Your task to perform on an android device: search for starred emails in the gmail app Image 0: 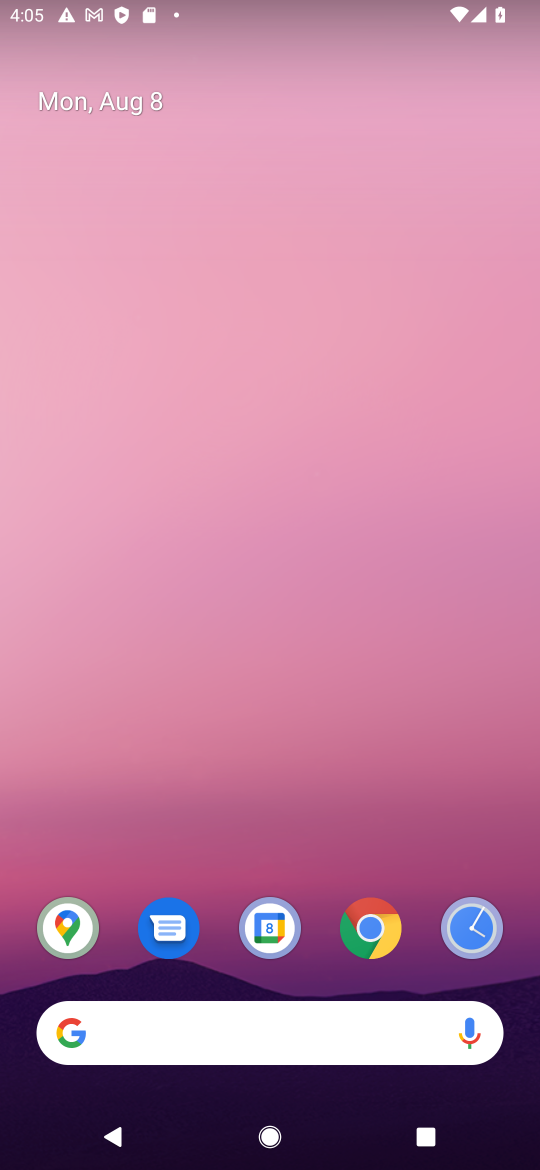
Step 0: drag from (382, 855) to (297, 31)
Your task to perform on an android device: search for starred emails in the gmail app Image 1: 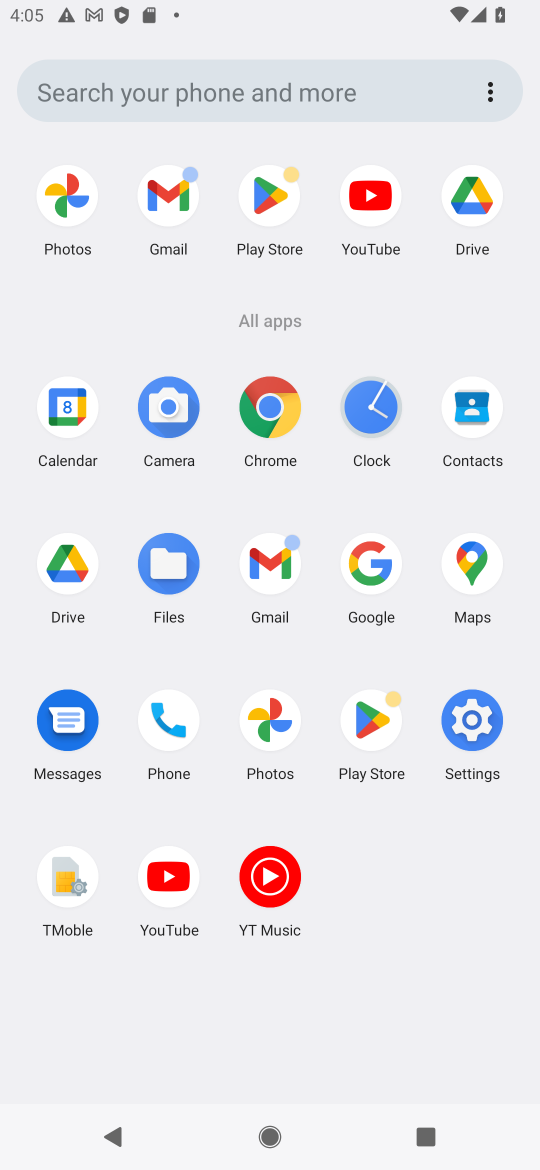
Step 1: click (165, 201)
Your task to perform on an android device: search for starred emails in the gmail app Image 2: 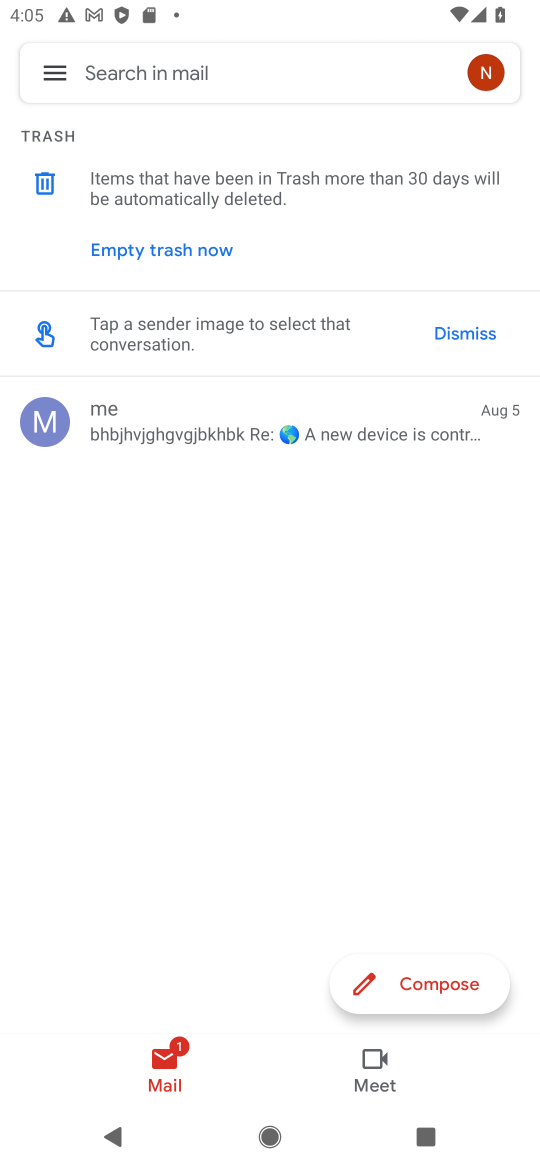
Step 2: click (66, 71)
Your task to perform on an android device: search for starred emails in the gmail app Image 3: 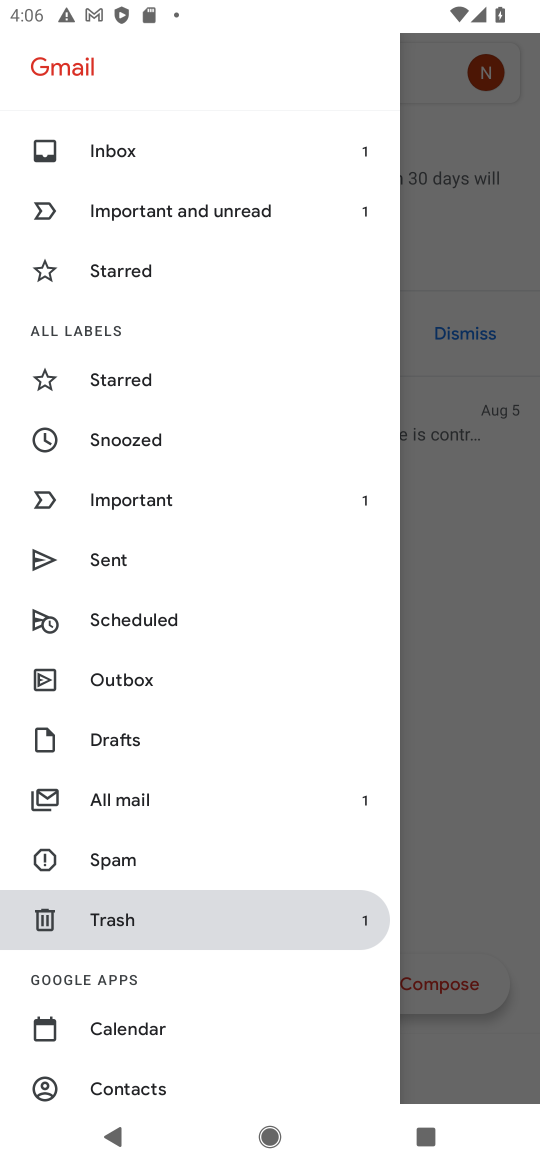
Step 3: click (189, 387)
Your task to perform on an android device: search for starred emails in the gmail app Image 4: 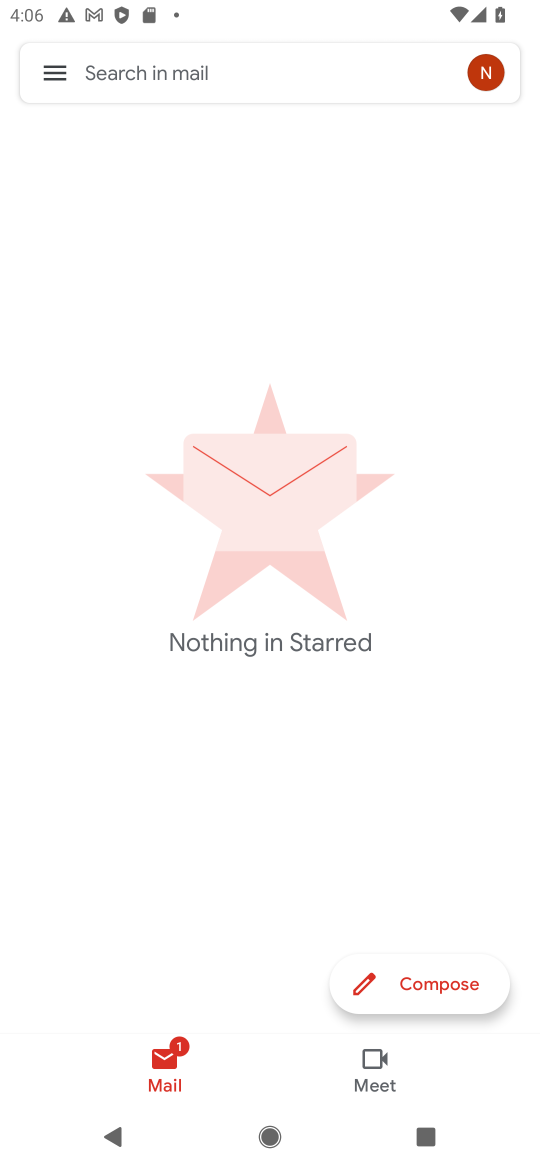
Step 4: task complete